Your task to perform on an android device: turn off location history Image 0: 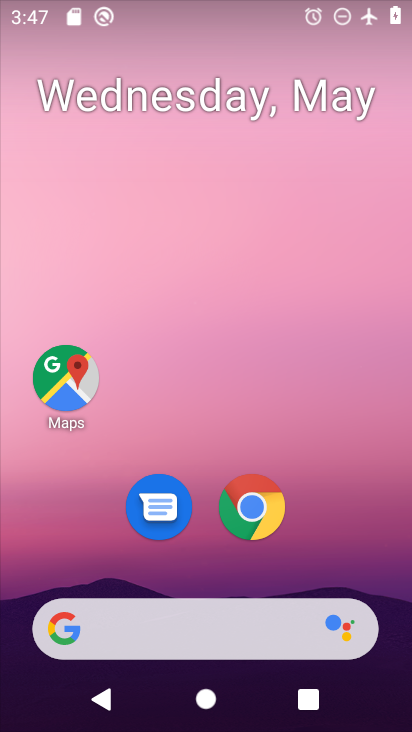
Step 0: drag from (254, 595) to (303, 109)
Your task to perform on an android device: turn off location history Image 1: 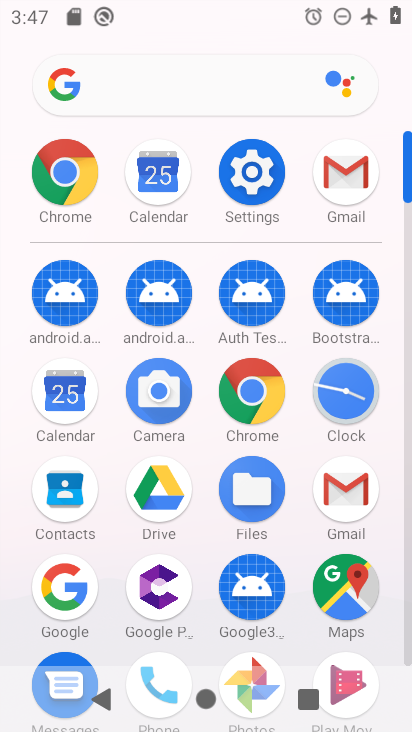
Step 1: click (248, 166)
Your task to perform on an android device: turn off location history Image 2: 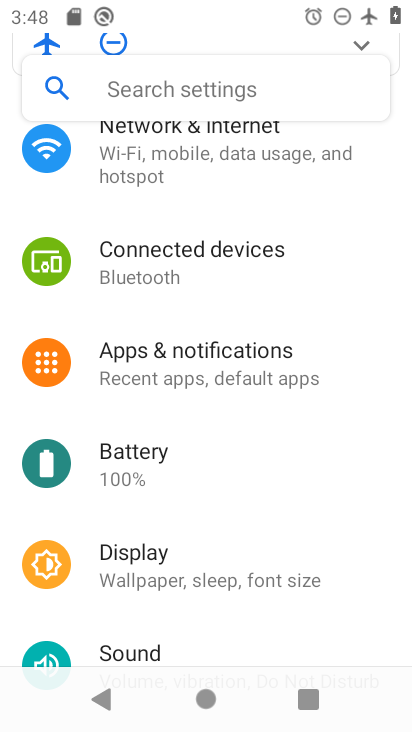
Step 2: drag from (183, 454) to (219, 113)
Your task to perform on an android device: turn off location history Image 3: 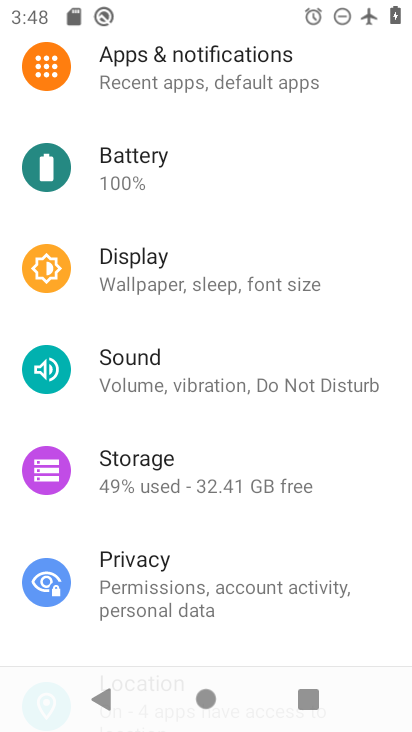
Step 3: drag from (209, 558) to (205, 91)
Your task to perform on an android device: turn off location history Image 4: 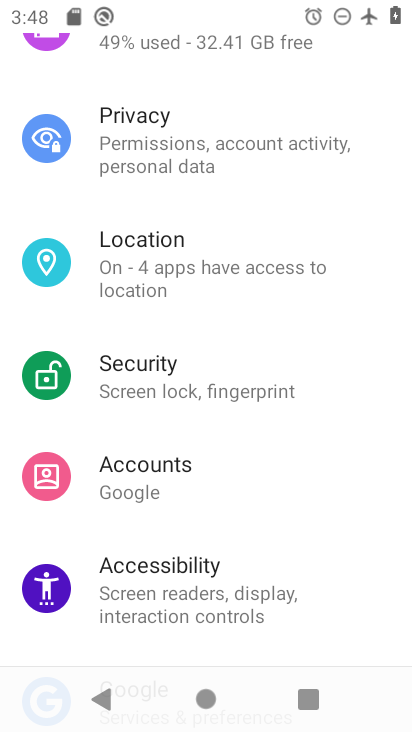
Step 4: drag from (192, 495) to (214, 199)
Your task to perform on an android device: turn off location history Image 5: 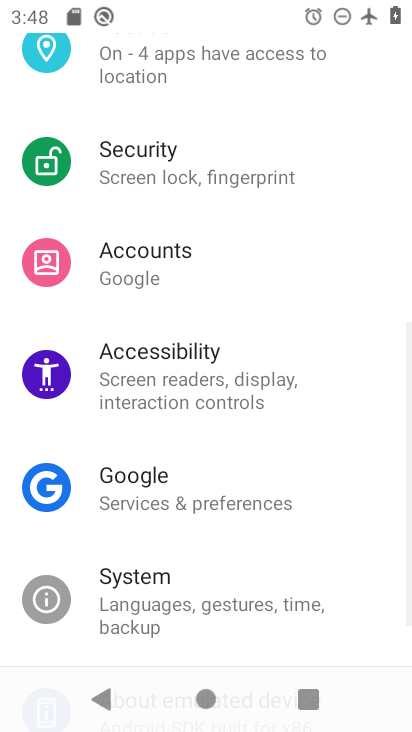
Step 5: drag from (229, 325) to (224, 612)
Your task to perform on an android device: turn off location history Image 6: 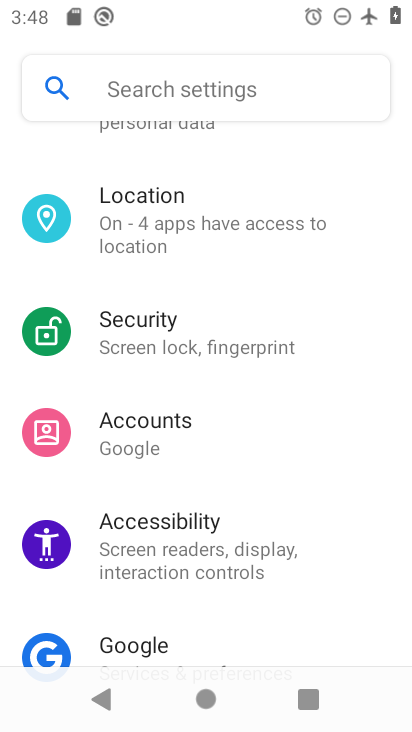
Step 6: click (180, 244)
Your task to perform on an android device: turn off location history Image 7: 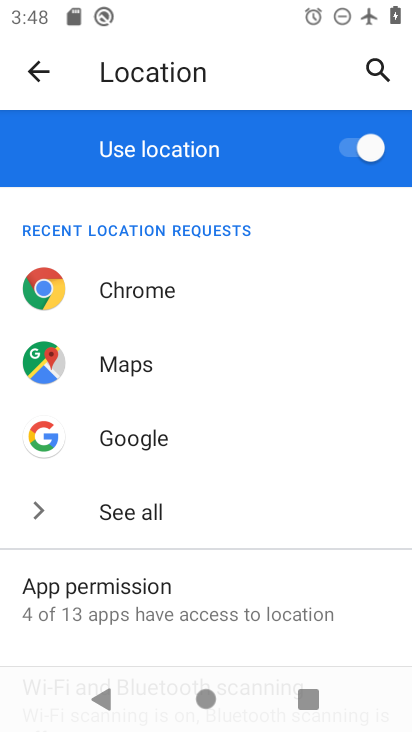
Step 7: drag from (169, 590) to (382, 96)
Your task to perform on an android device: turn off location history Image 8: 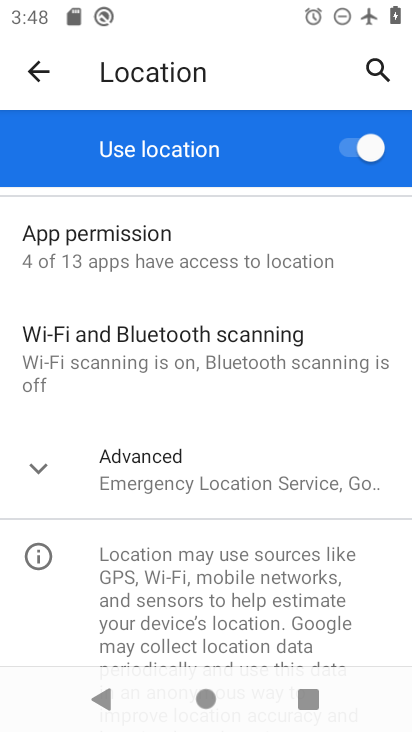
Step 8: click (165, 479)
Your task to perform on an android device: turn off location history Image 9: 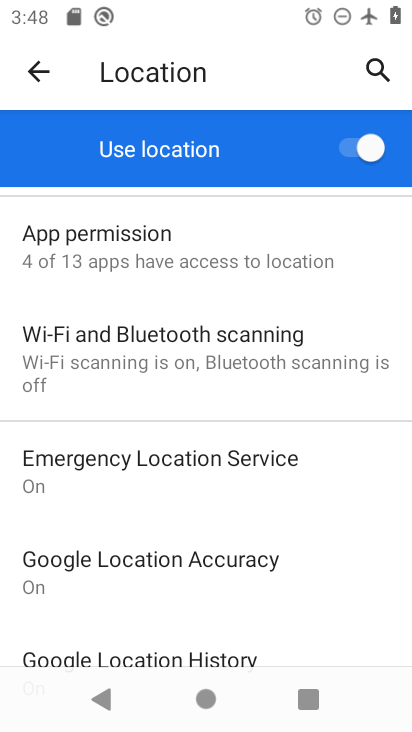
Step 9: drag from (123, 578) to (230, 309)
Your task to perform on an android device: turn off location history Image 10: 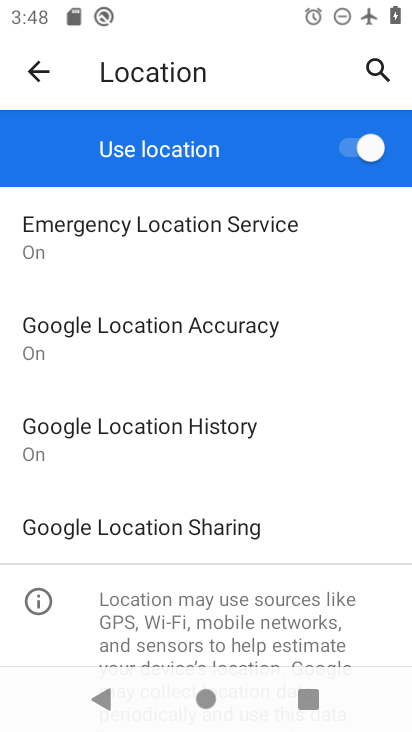
Step 10: click (197, 439)
Your task to perform on an android device: turn off location history Image 11: 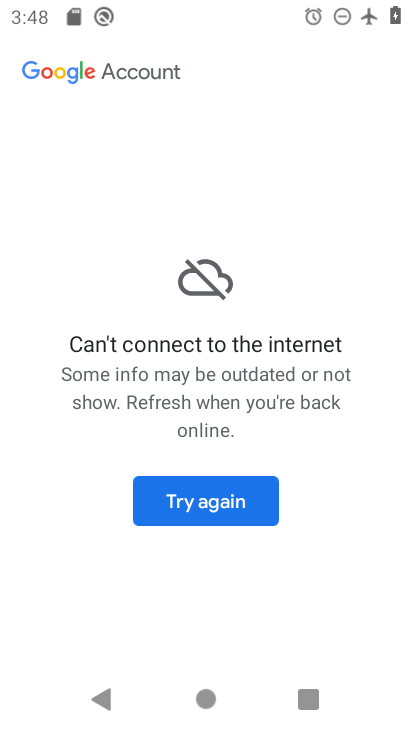
Step 11: task complete